Your task to perform on an android device: Check the weather Image 0: 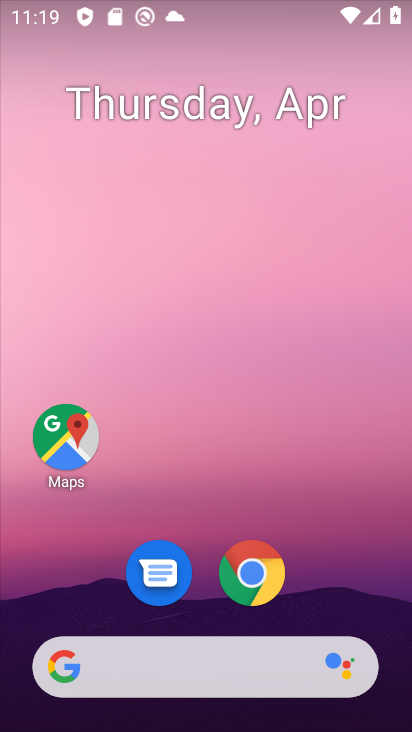
Step 0: drag from (308, 569) to (267, 94)
Your task to perform on an android device: Check the weather Image 1: 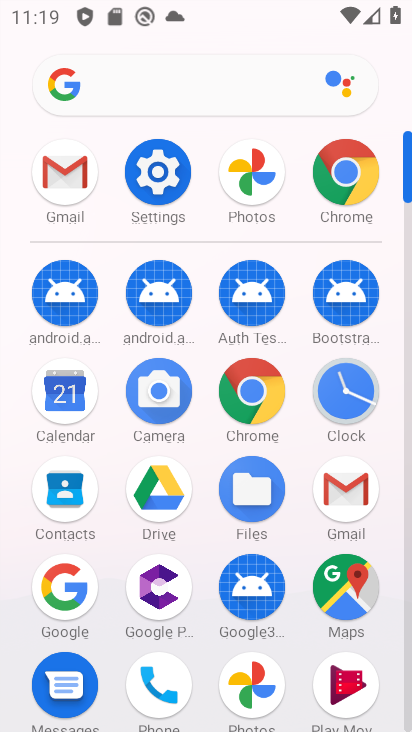
Step 1: click (77, 595)
Your task to perform on an android device: Check the weather Image 2: 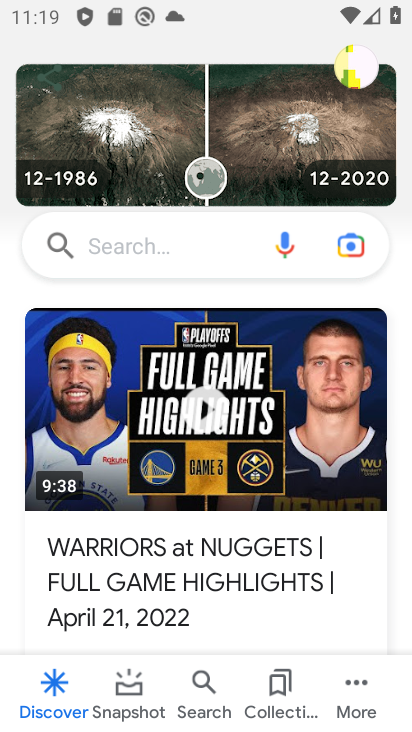
Step 2: click (198, 250)
Your task to perform on an android device: Check the weather Image 3: 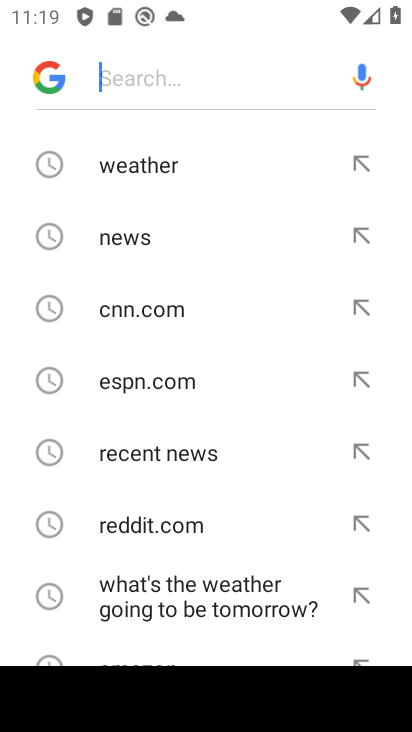
Step 3: click (161, 168)
Your task to perform on an android device: Check the weather Image 4: 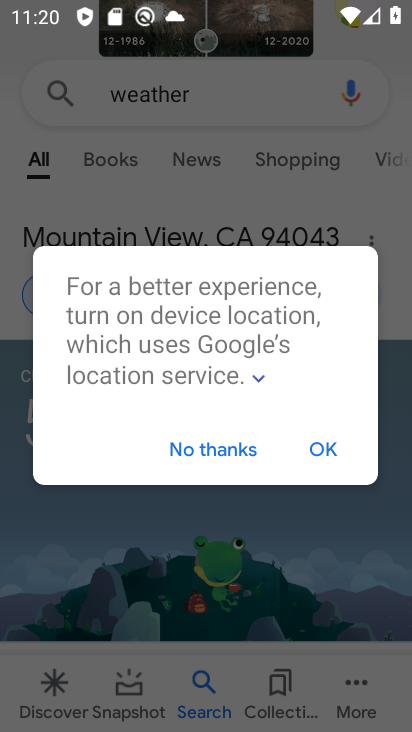
Step 4: click (332, 449)
Your task to perform on an android device: Check the weather Image 5: 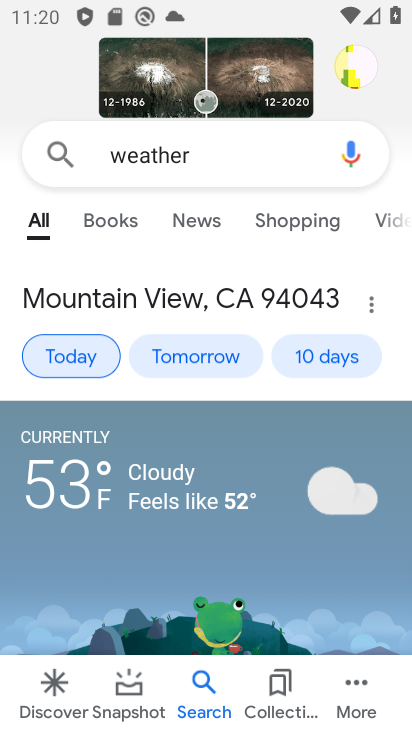
Step 5: task complete